Your task to perform on an android device: manage bookmarks in the chrome app Image 0: 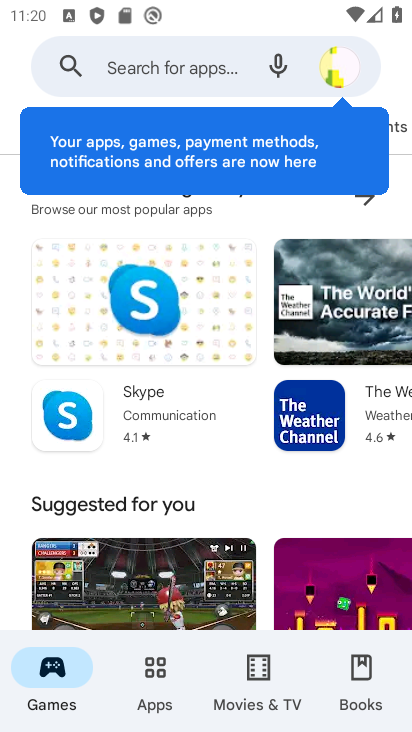
Step 0: press home button
Your task to perform on an android device: manage bookmarks in the chrome app Image 1: 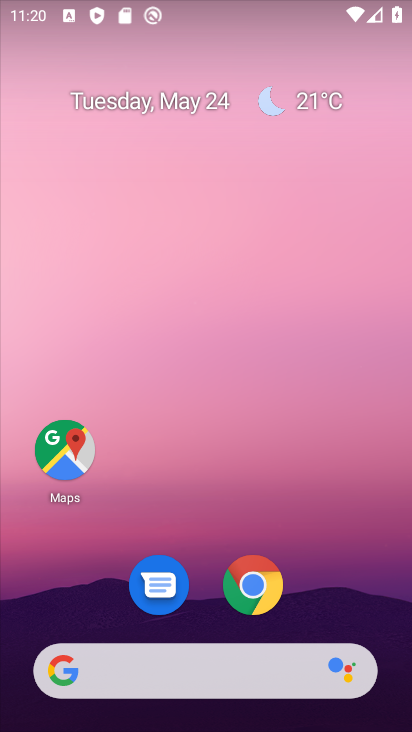
Step 1: click (245, 579)
Your task to perform on an android device: manage bookmarks in the chrome app Image 2: 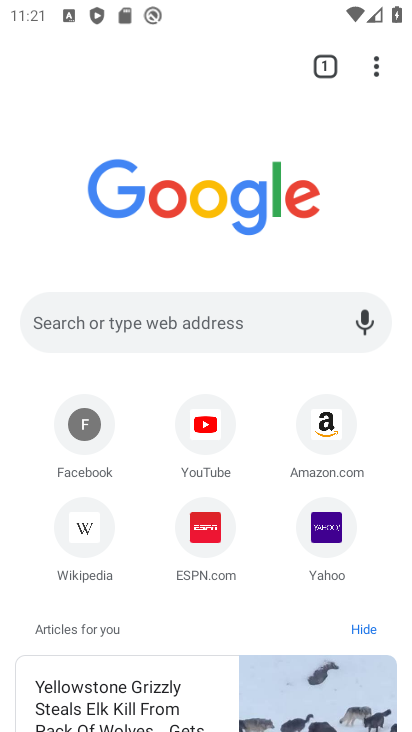
Step 2: click (376, 61)
Your task to perform on an android device: manage bookmarks in the chrome app Image 3: 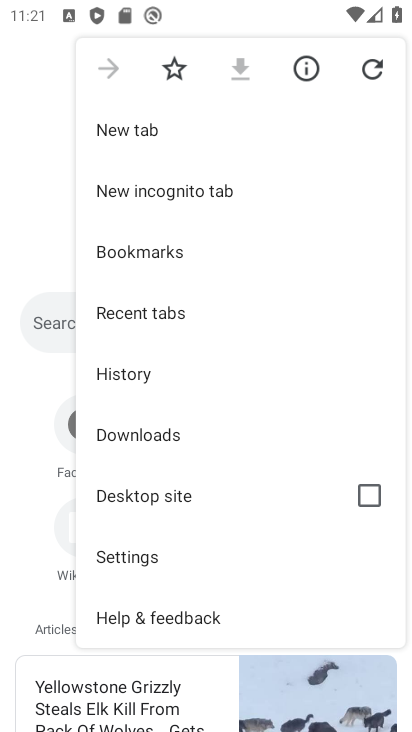
Step 3: click (217, 245)
Your task to perform on an android device: manage bookmarks in the chrome app Image 4: 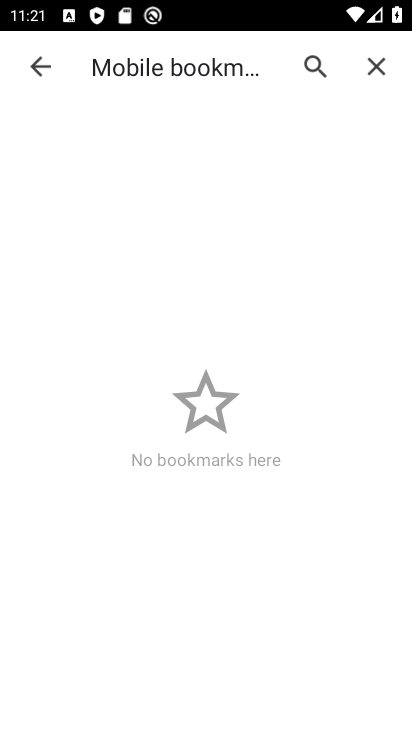
Step 4: task complete